Your task to perform on an android device: all mails in gmail Image 0: 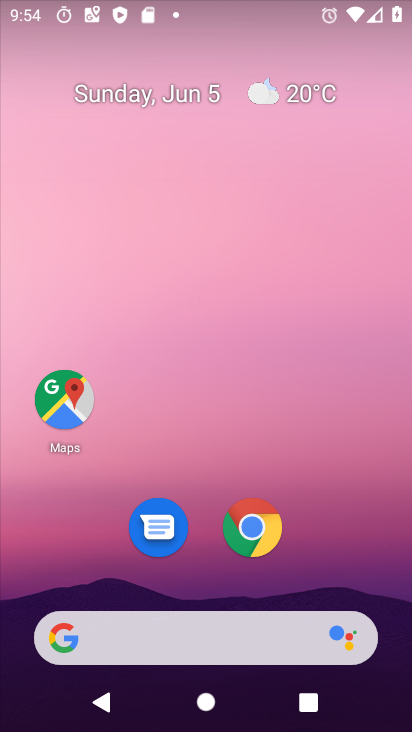
Step 0: drag from (334, 476) to (364, 5)
Your task to perform on an android device: all mails in gmail Image 1: 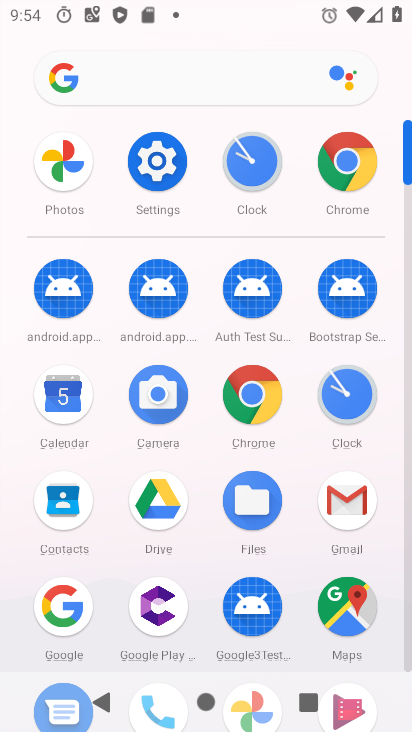
Step 1: click (351, 481)
Your task to perform on an android device: all mails in gmail Image 2: 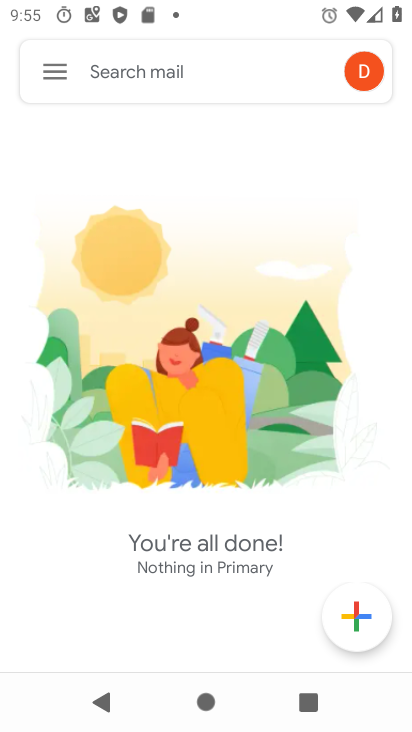
Step 2: click (56, 53)
Your task to perform on an android device: all mails in gmail Image 3: 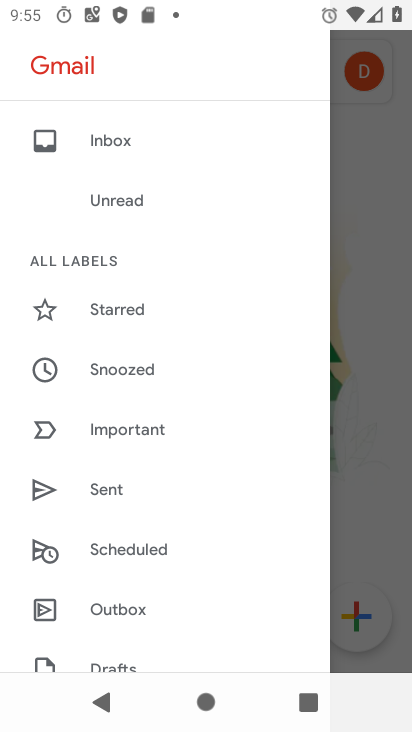
Step 3: drag from (179, 560) to (210, 118)
Your task to perform on an android device: all mails in gmail Image 4: 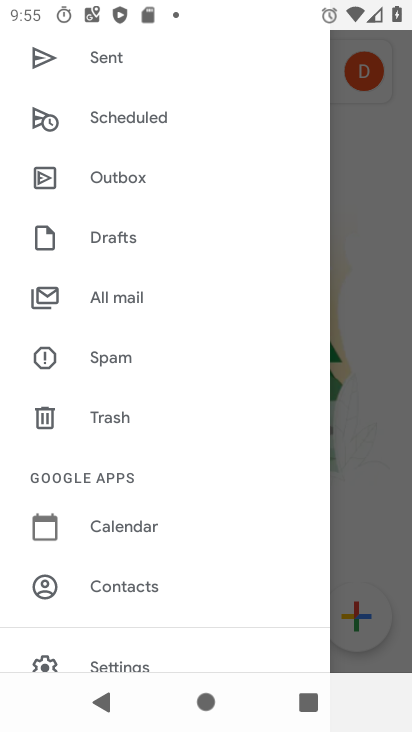
Step 4: click (99, 301)
Your task to perform on an android device: all mails in gmail Image 5: 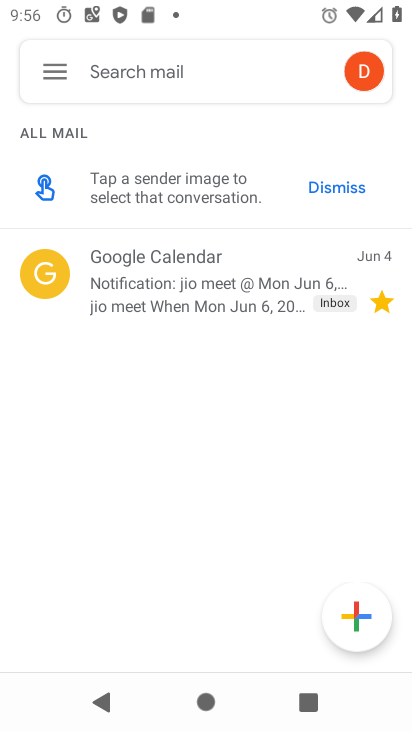
Step 5: task complete